Your task to perform on an android device: toggle notifications settings in the gmail app Image 0: 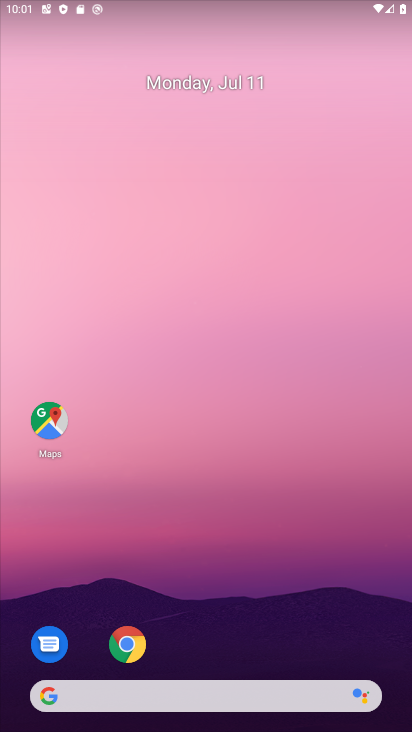
Step 0: press home button
Your task to perform on an android device: toggle notifications settings in the gmail app Image 1: 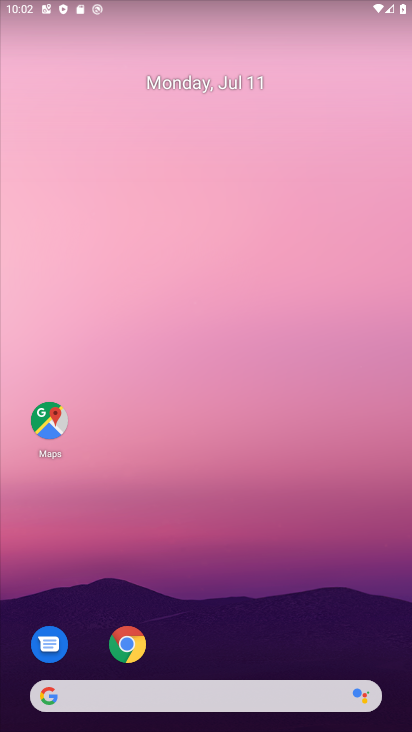
Step 1: drag from (225, 655) to (232, 151)
Your task to perform on an android device: toggle notifications settings in the gmail app Image 2: 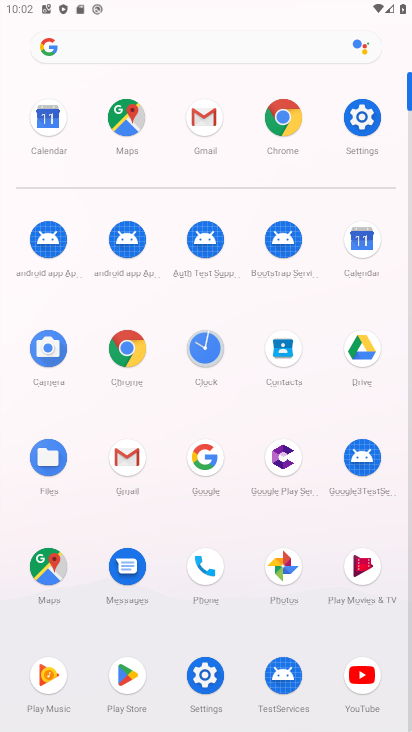
Step 2: click (197, 106)
Your task to perform on an android device: toggle notifications settings in the gmail app Image 3: 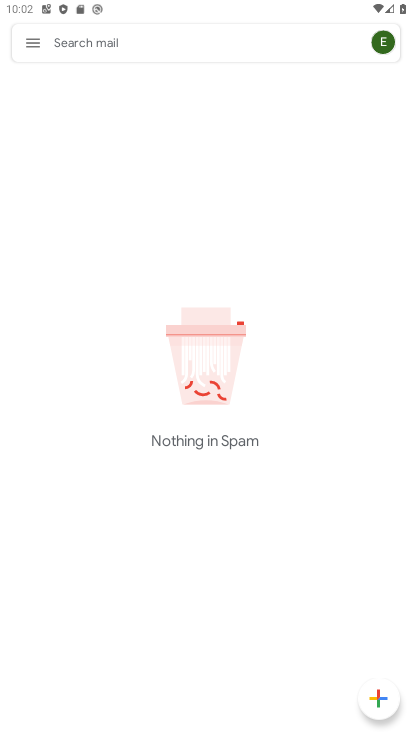
Step 3: click (25, 39)
Your task to perform on an android device: toggle notifications settings in the gmail app Image 4: 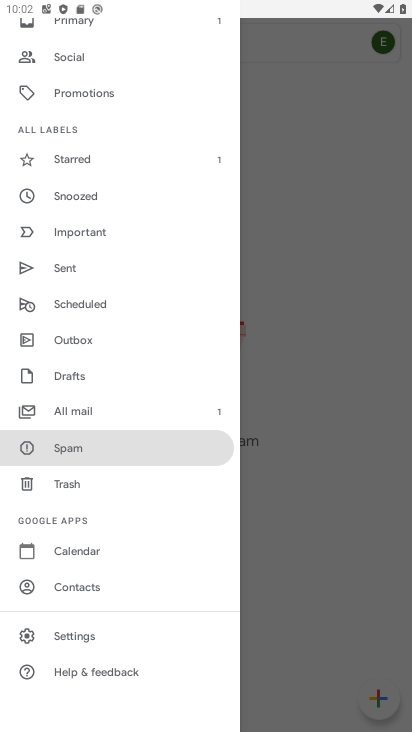
Step 4: click (78, 634)
Your task to perform on an android device: toggle notifications settings in the gmail app Image 5: 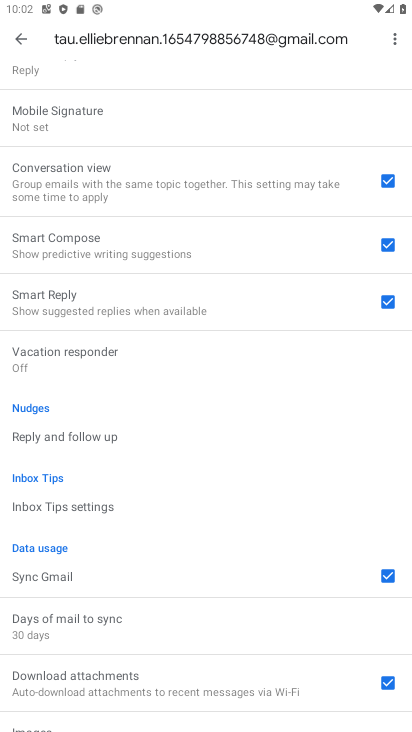
Step 5: click (13, 38)
Your task to perform on an android device: toggle notifications settings in the gmail app Image 6: 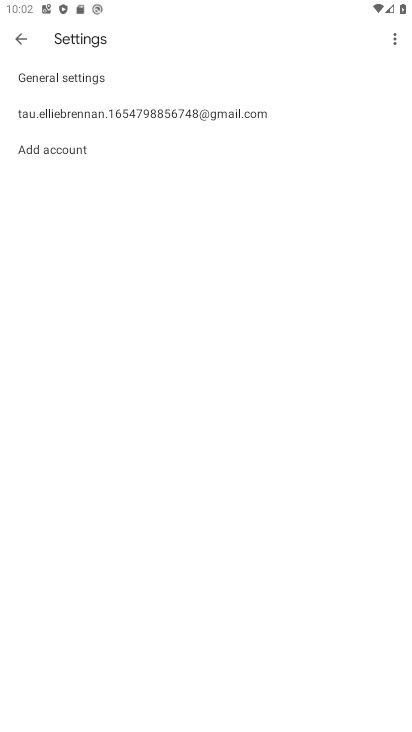
Step 6: click (91, 76)
Your task to perform on an android device: toggle notifications settings in the gmail app Image 7: 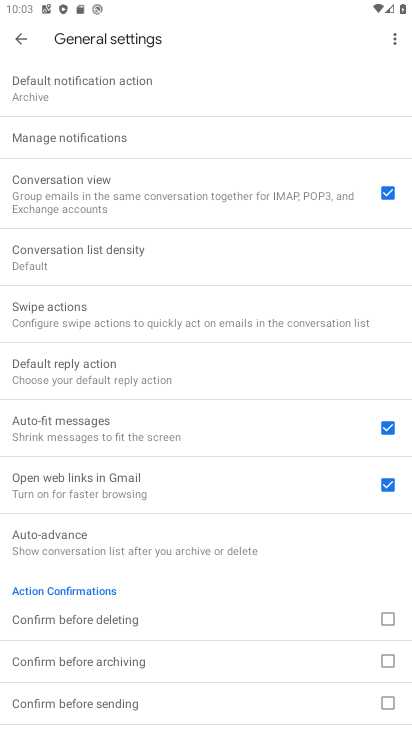
Step 7: click (115, 145)
Your task to perform on an android device: toggle notifications settings in the gmail app Image 8: 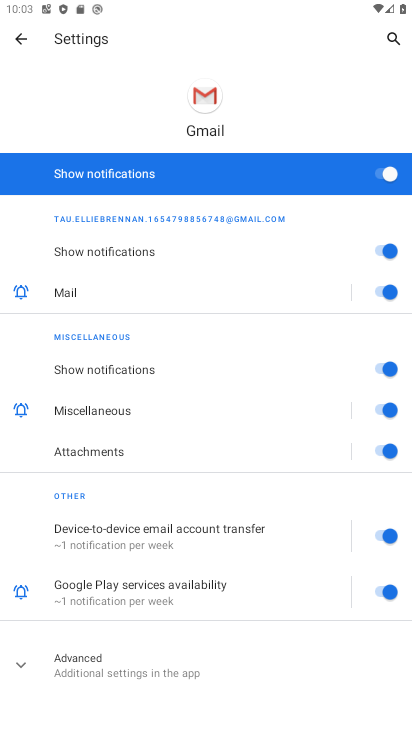
Step 8: click (374, 177)
Your task to perform on an android device: toggle notifications settings in the gmail app Image 9: 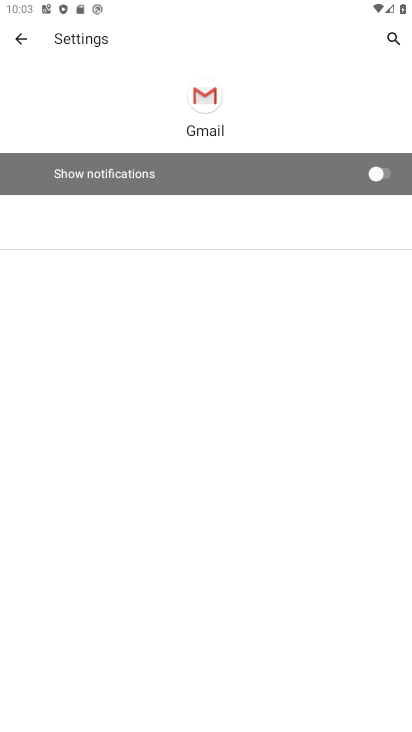
Step 9: task complete